Your task to perform on an android device: What's the weather today? Image 0: 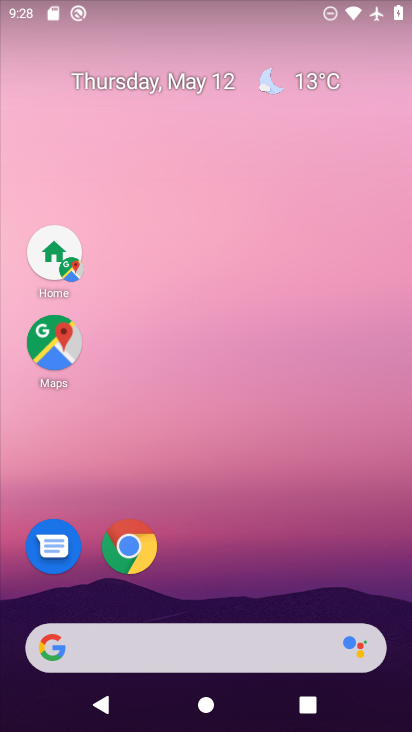
Step 0: click (303, 84)
Your task to perform on an android device: What's the weather today? Image 1: 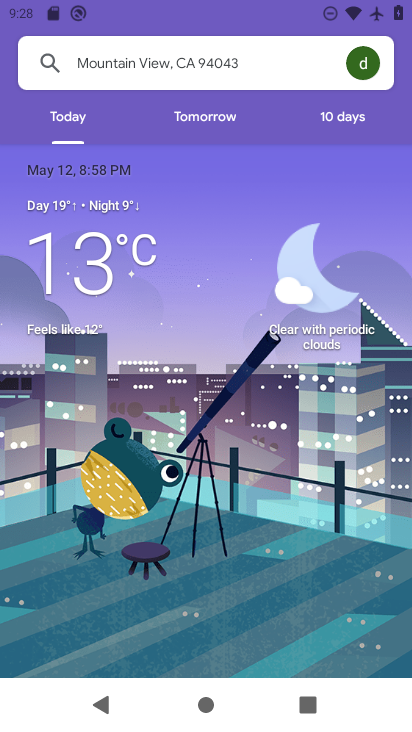
Step 1: task complete